Your task to perform on an android device: Go to Android settings Image 0: 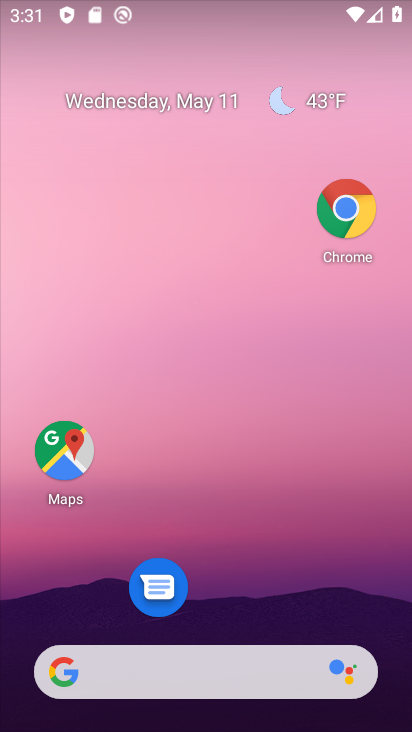
Step 0: drag from (211, 583) to (138, 339)
Your task to perform on an android device: Go to Android settings Image 1: 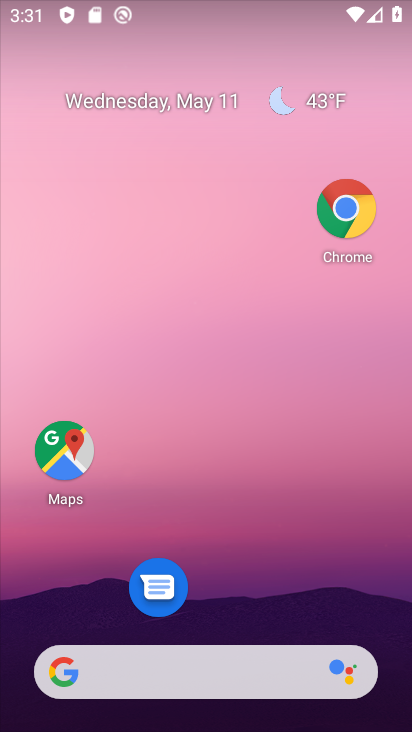
Step 1: drag from (219, 722) to (278, 58)
Your task to perform on an android device: Go to Android settings Image 2: 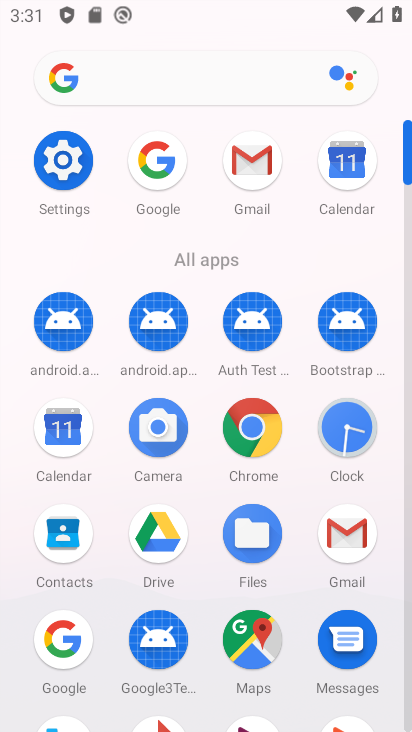
Step 2: click (54, 178)
Your task to perform on an android device: Go to Android settings Image 3: 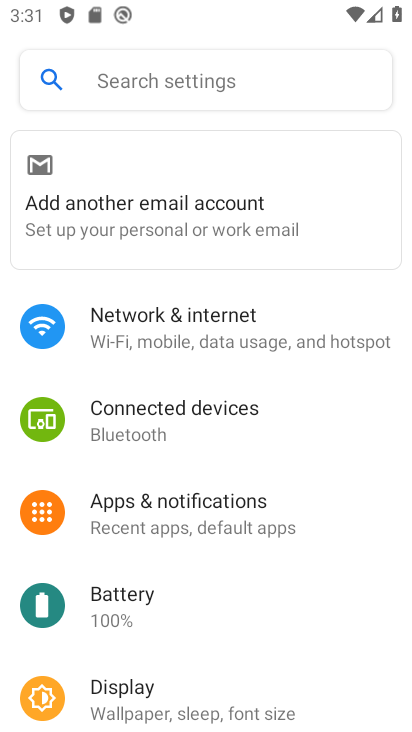
Step 3: task complete